Your task to perform on an android device: Play the last video I watched on Youtube Image 0: 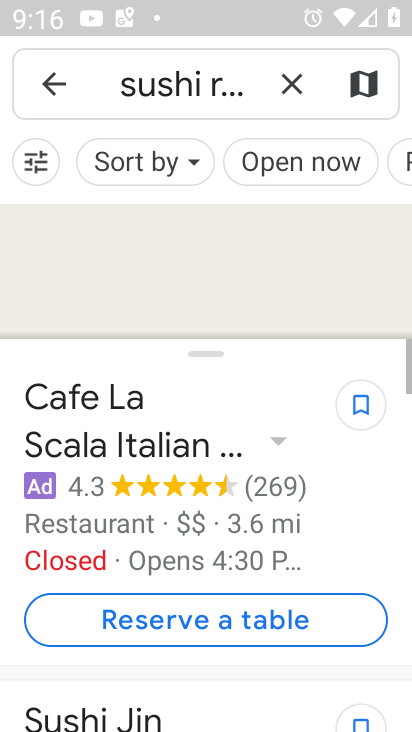
Step 0: press home button
Your task to perform on an android device: Play the last video I watched on Youtube Image 1: 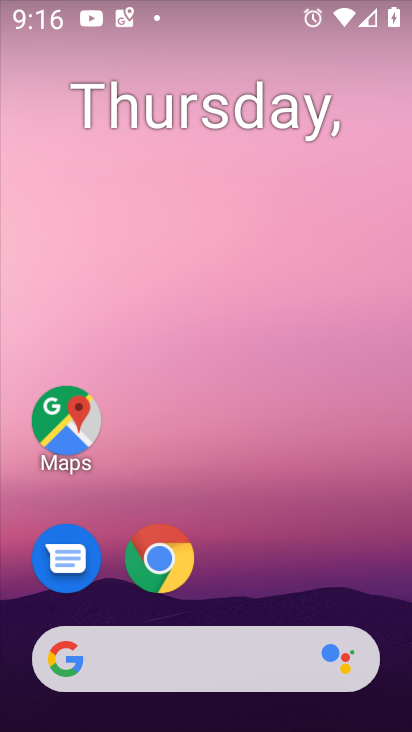
Step 1: drag from (371, 574) to (409, 225)
Your task to perform on an android device: Play the last video I watched on Youtube Image 2: 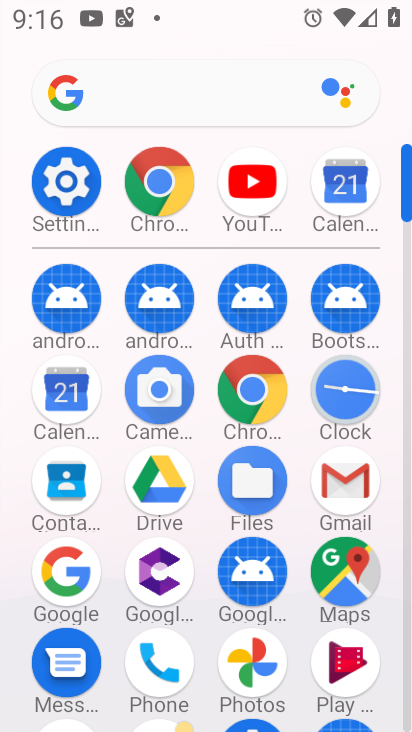
Step 2: click (245, 195)
Your task to perform on an android device: Play the last video I watched on Youtube Image 3: 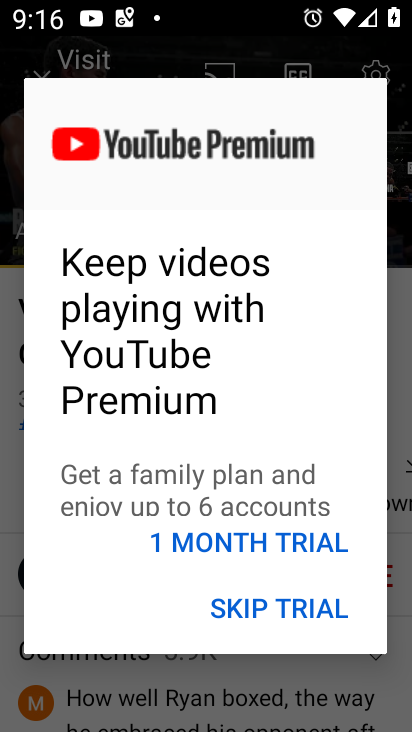
Step 3: click (239, 615)
Your task to perform on an android device: Play the last video I watched on Youtube Image 4: 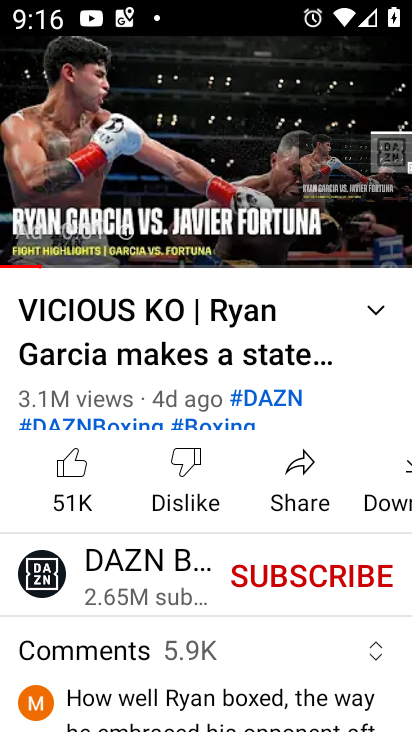
Step 4: task complete